Your task to perform on an android device: allow cookies in the chrome app Image 0: 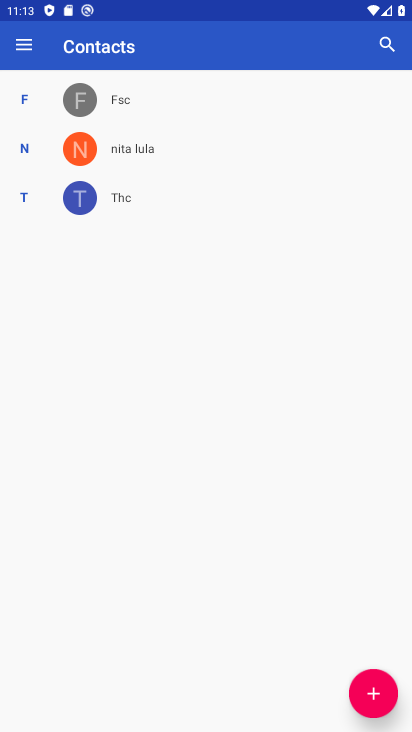
Step 0: press home button
Your task to perform on an android device: allow cookies in the chrome app Image 1: 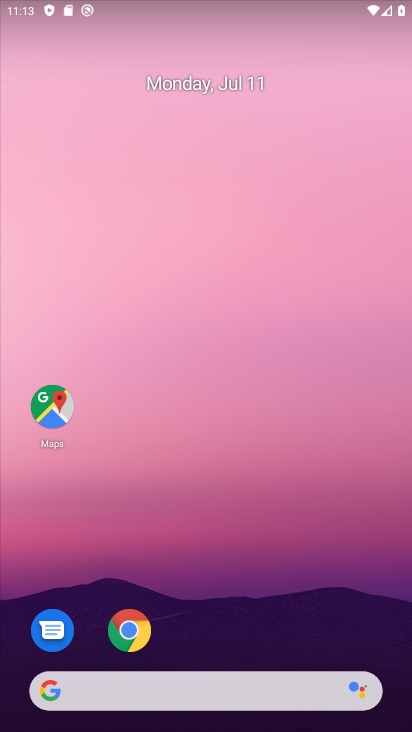
Step 1: click (131, 630)
Your task to perform on an android device: allow cookies in the chrome app Image 2: 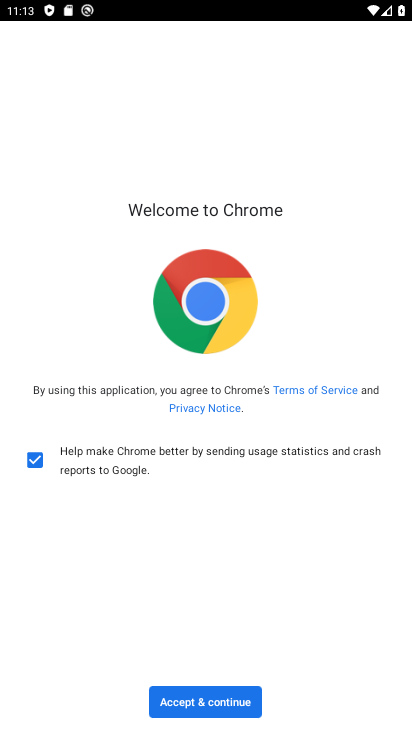
Step 2: click (212, 694)
Your task to perform on an android device: allow cookies in the chrome app Image 3: 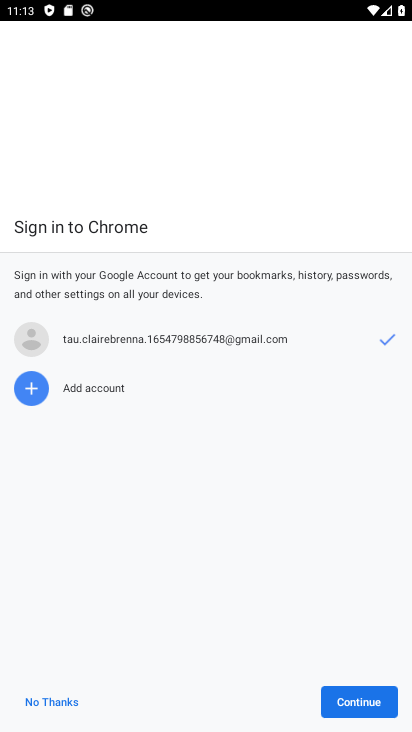
Step 3: click (362, 711)
Your task to perform on an android device: allow cookies in the chrome app Image 4: 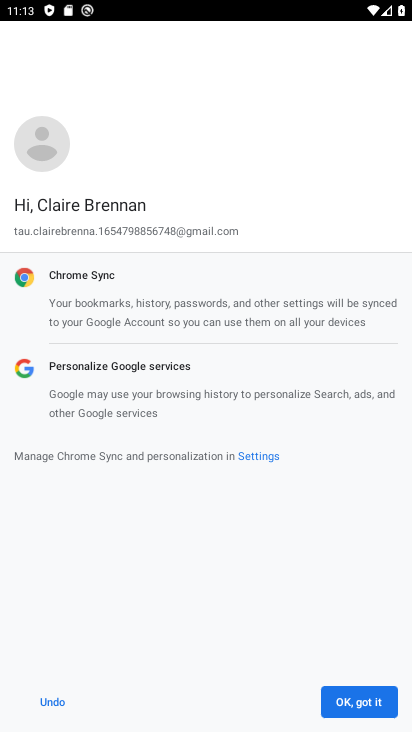
Step 4: click (362, 711)
Your task to perform on an android device: allow cookies in the chrome app Image 5: 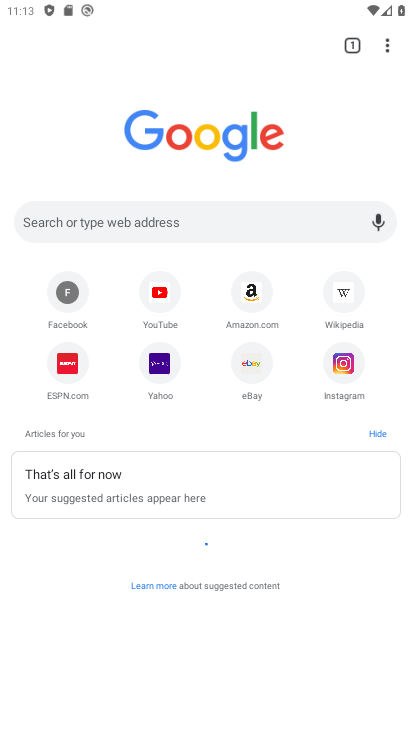
Step 5: click (385, 46)
Your task to perform on an android device: allow cookies in the chrome app Image 6: 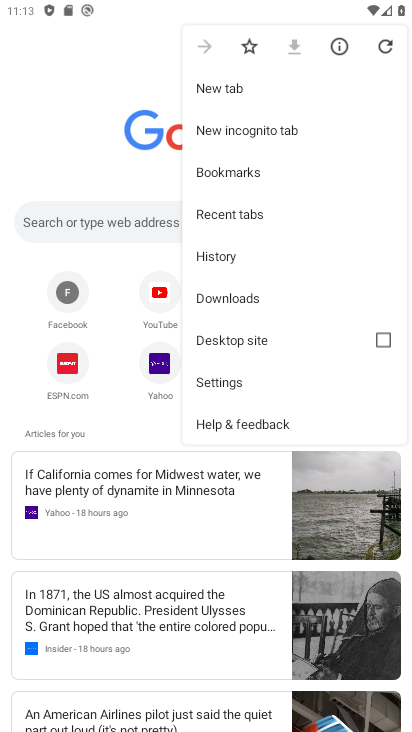
Step 6: click (246, 382)
Your task to perform on an android device: allow cookies in the chrome app Image 7: 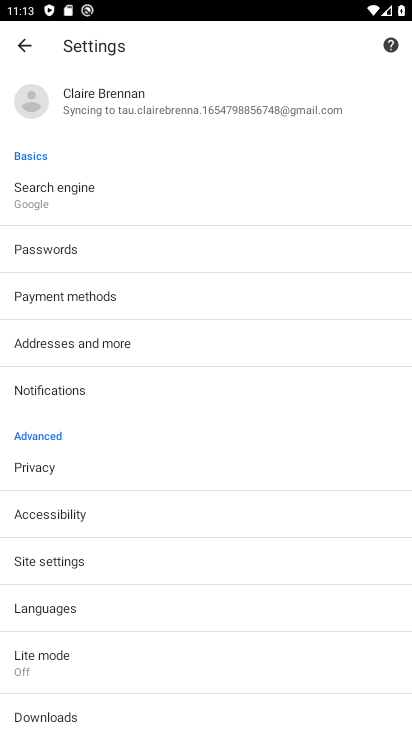
Step 7: click (57, 570)
Your task to perform on an android device: allow cookies in the chrome app Image 8: 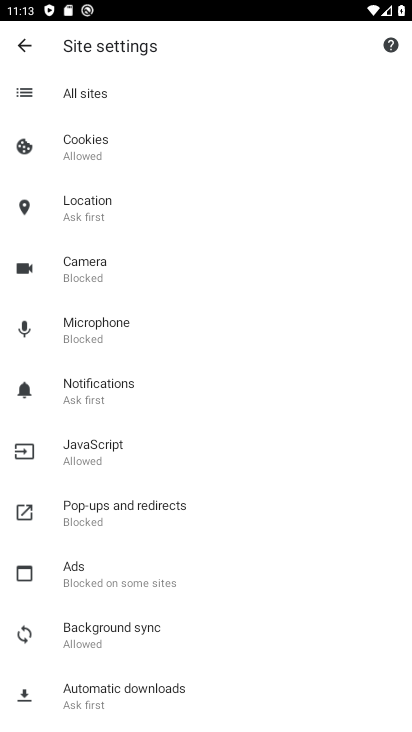
Step 8: click (146, 146)
Your task to perform on an android device: allow cookies in the chrome app Image 9: 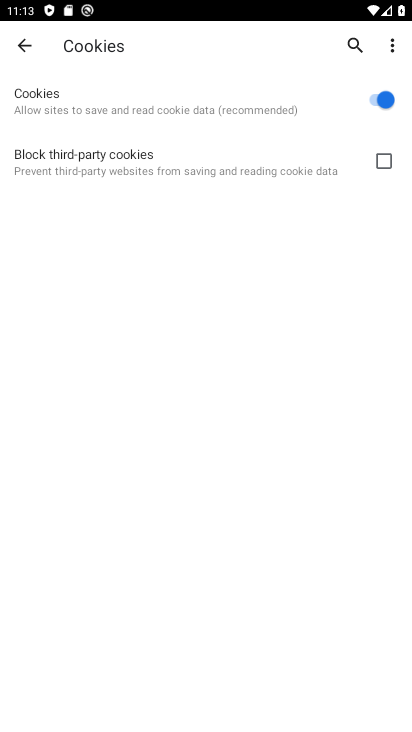
Step 9: task complete